Your task to perform on an android device: turn notification dots on Image 0: 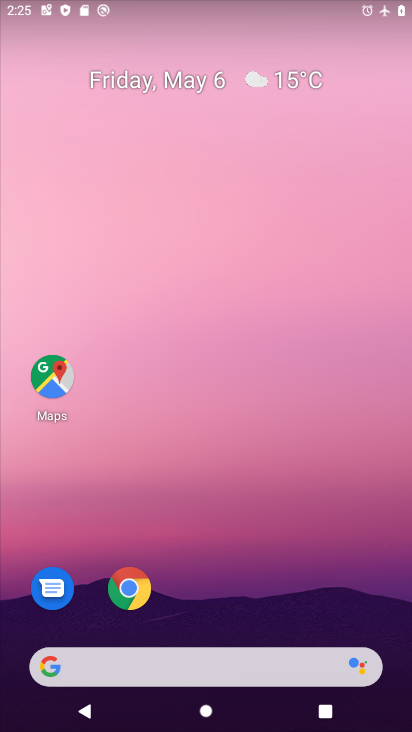
Step 0: drag from (211, 579) to (265, 228)
Your task to perform on an android device: turn notification dots on Image 1: 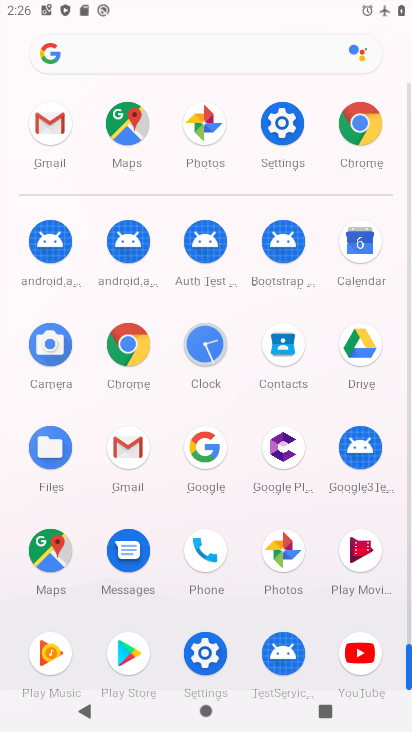
Step 1: click (289, 126)
Your task to perform on an android device: turn notification dots on Image 2: 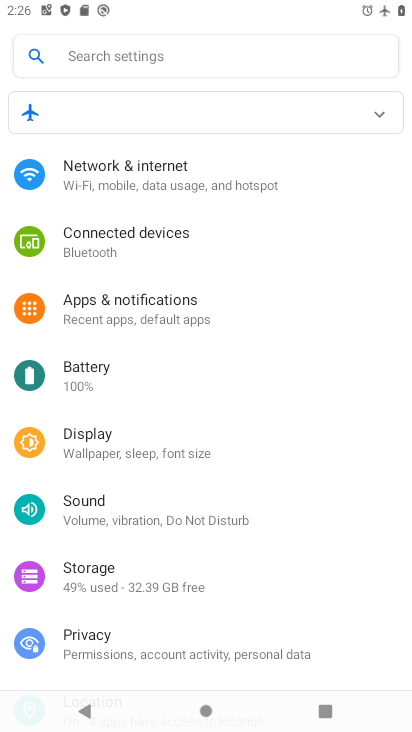
Step 2: drag from (118, 416) to (302, 35)
Your task to perform on an android device: turn notification dots on Image 3: 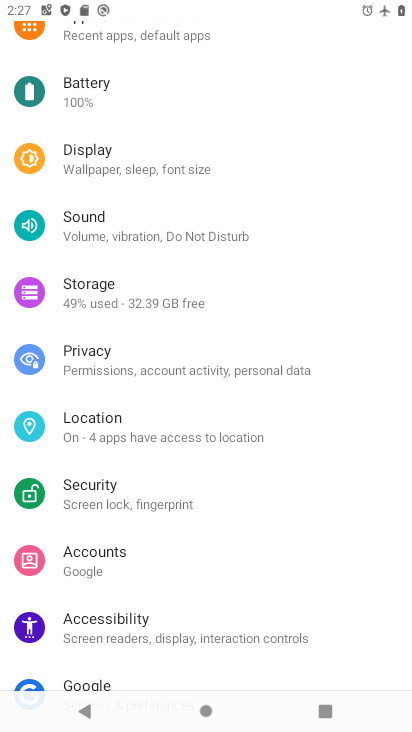
Step 3: drag from (203, 99) to (253, 537)
Your task to perform on an android device: turn notification dots on Image 4: 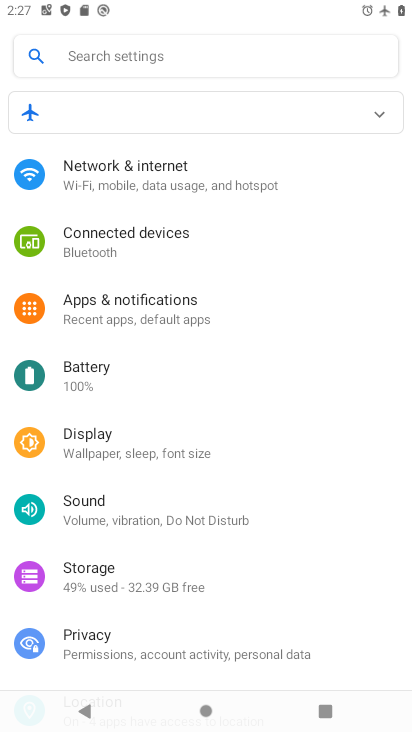
Step 4: drag from (163, 531) to (253, 221)
Your task to perform on an android device: turn notification dots on Image 5: 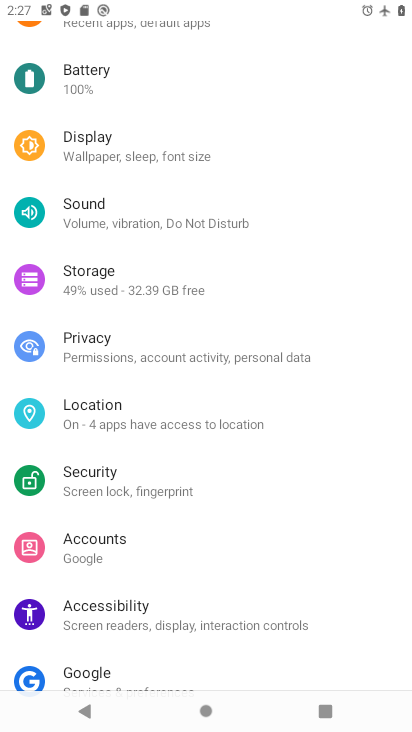
Step 5: drag from (250, 14) to (229, 207)
Your task to perform on an android device: turn notification dots on Image 6: 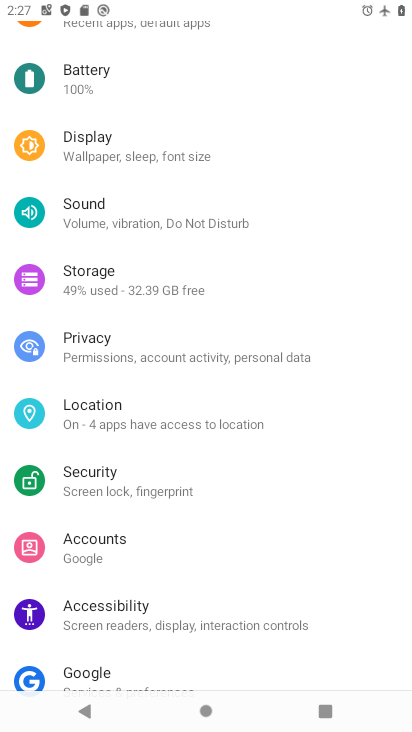
Step 6: drag from (229, 208) to (237, 366)
Your task to perform on an android device: turn notification dots on Image 7: 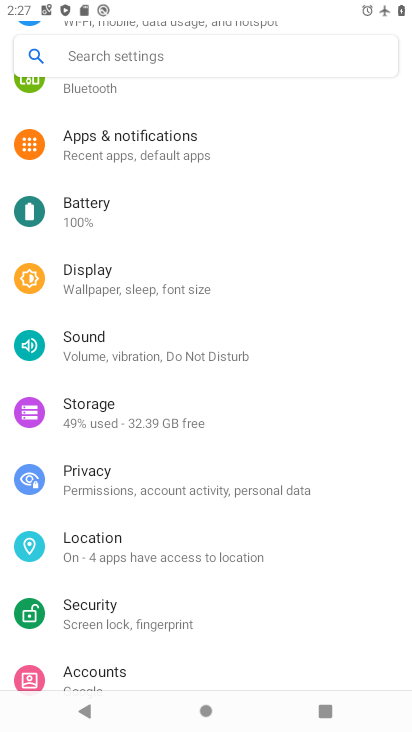
Step 7: click (160, 126)
Your task to perform on an android device: turn notification dots on Image 8: 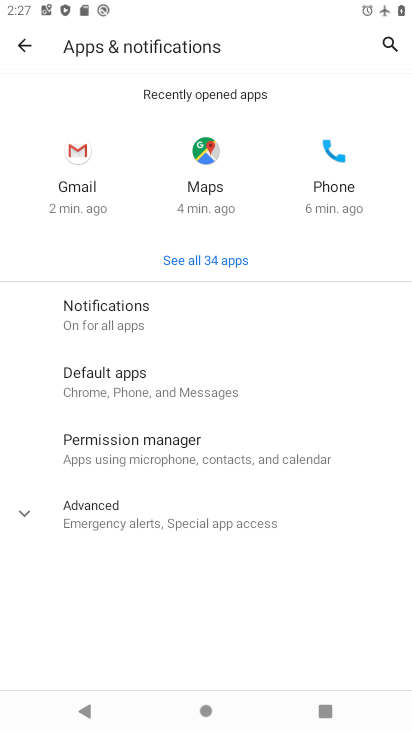
Step 8: click (115, 521)
Your task to perform on an android device: turn notification dots on Image 9: 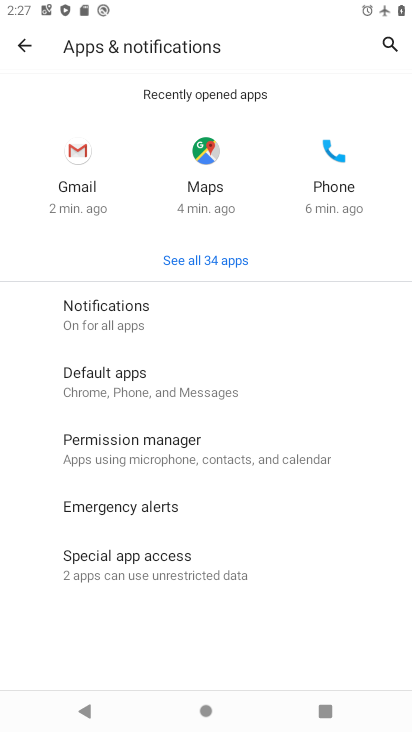
Step 9: click (171, 307)
Your task to perform on an android device: turn notification dots on Image 10: 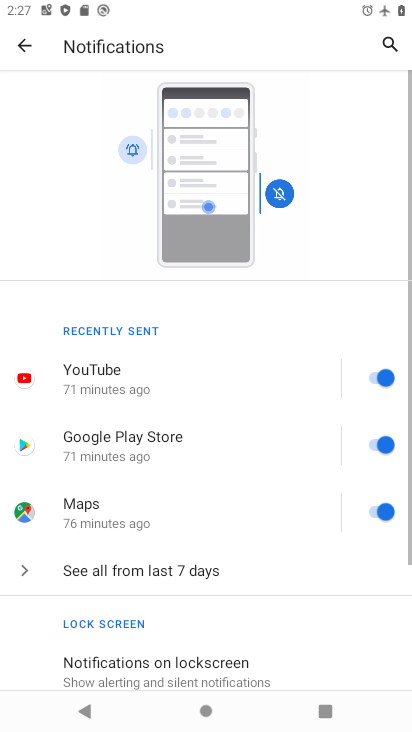
Step 10: drag from (232, 680) to (288, 297)
Your task to perform on an android device: turn notification dots on Image 11: 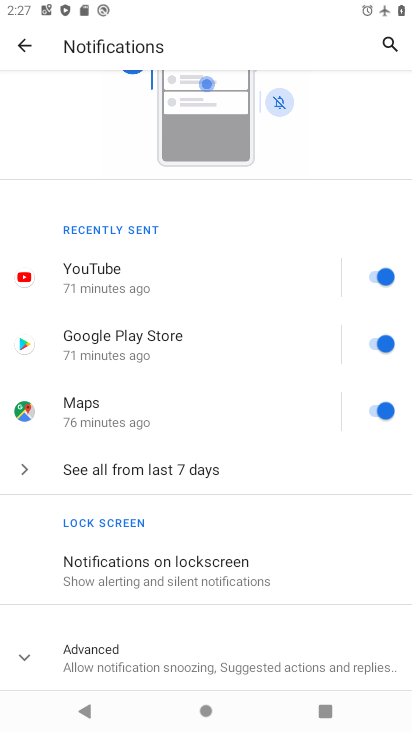
Step 11: drag from (214, 508) to (279, 188)
Your task to perform on an android device: turn notification dots on Image 12: 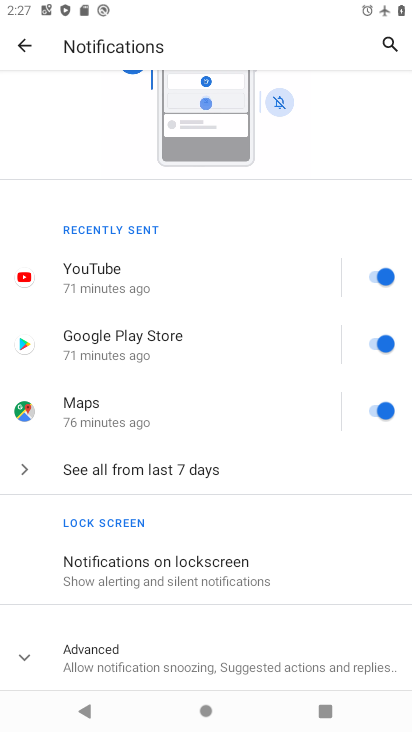
Step 12: click (148, 664)
Your task to perform on an android device: turn notification dots on Image 13: 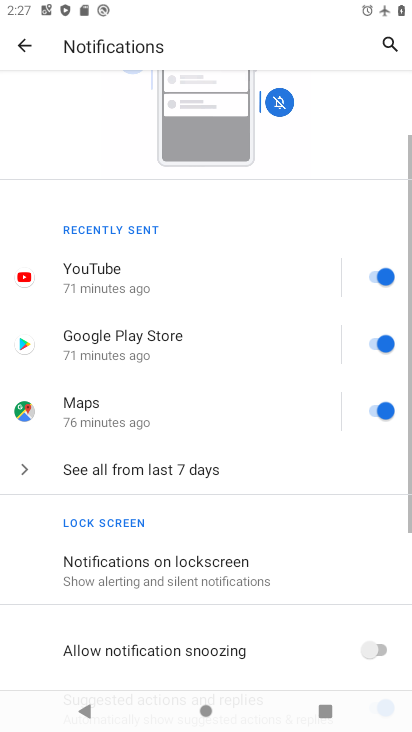
Step 13: drag from (145, 650) to (218, 322)
Your task to perform on an android device: turn notification dots on Image 14: 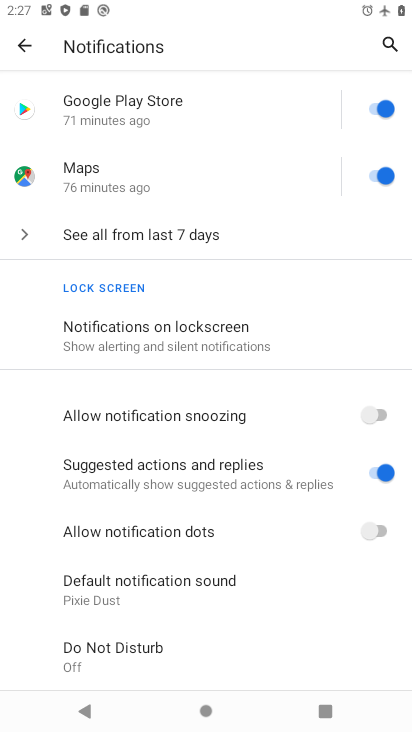
Step 14: drag from (197, 584) to (295, 246)
Your task to perform on an android device: turn notification dots on Image 15: 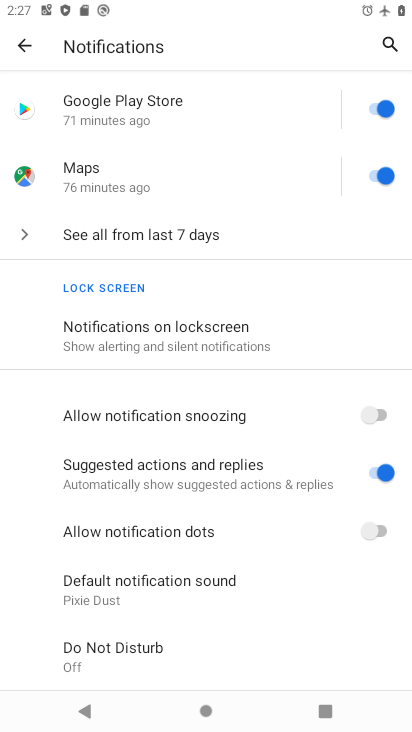
Step 15: click (297, 530)
Your task to perform on an android device: turn notification dots on Image 16: 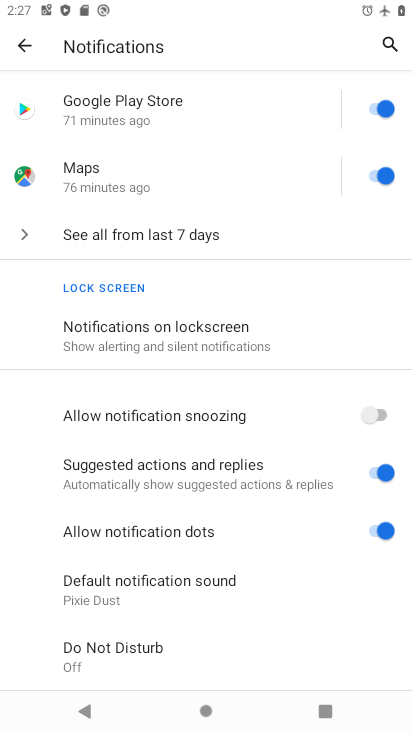
Step 16: task complete